Your task to perform on an android device: What's on my calendar tomorrow? Image 0: 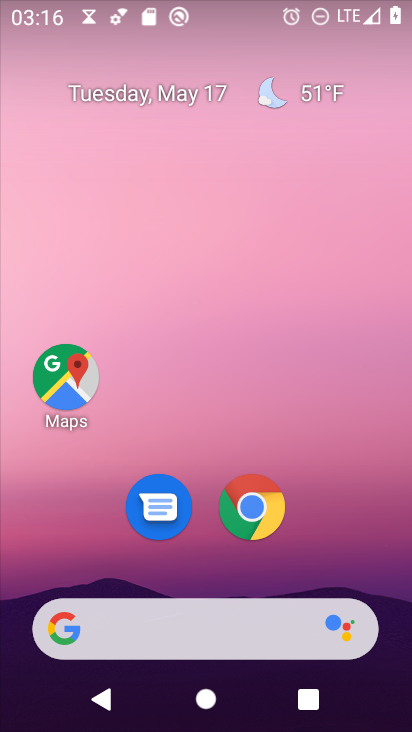
Step 0: drag from (290, 562) to (257, 40)
Your task to perform on an android device: What's on my calendar tomorrow? Image 1: 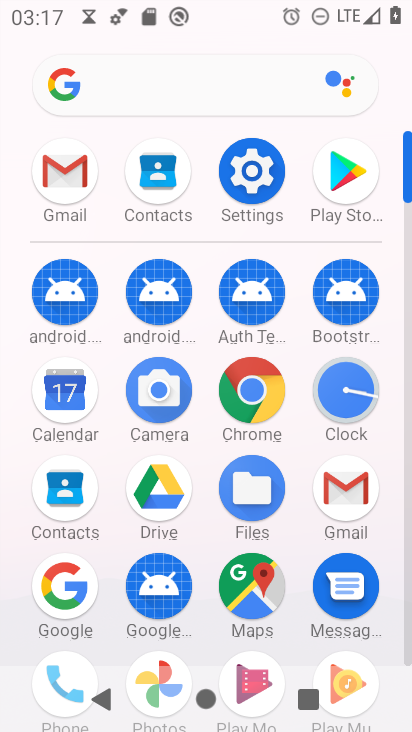
Step 1: click (56, 407)
Your task to perform on an android device: What's on my calendar tomorrow? Image 2: 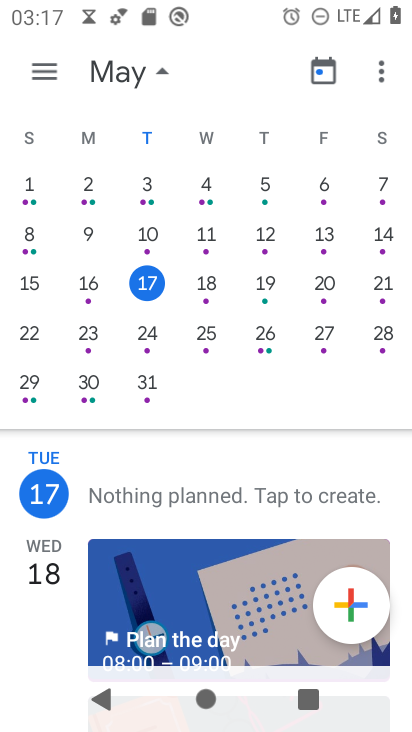
Step 2: click (205, 287)
Your task to perform on an android device: What's on my calendar tomorrow? Image 3: 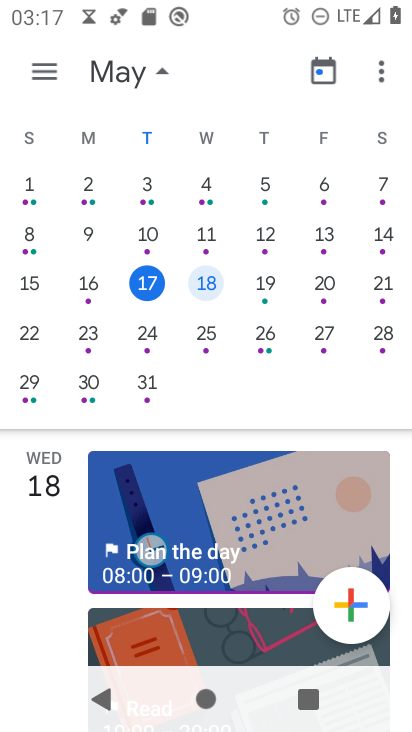
Step 3: task complete